Your task to perform on an android device: Open the calendar app, open the side menu, and click the "Day" option Image 0: 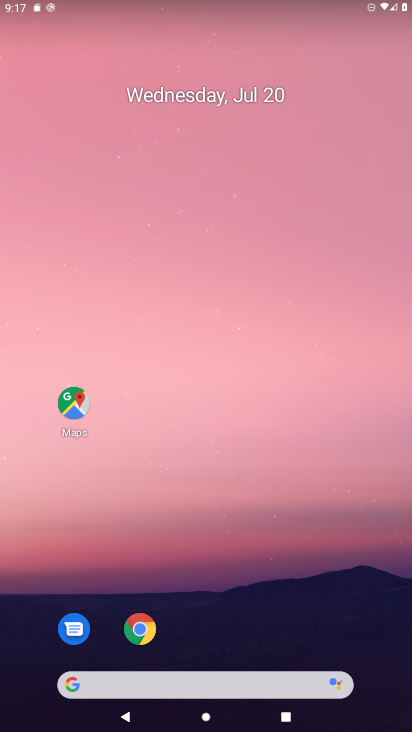
Step 0: drag from (388, 670) to (341, 10)
Your task to perform on an android device: Open the calendar app, open the side menu, and click the "Day" option Image 1: 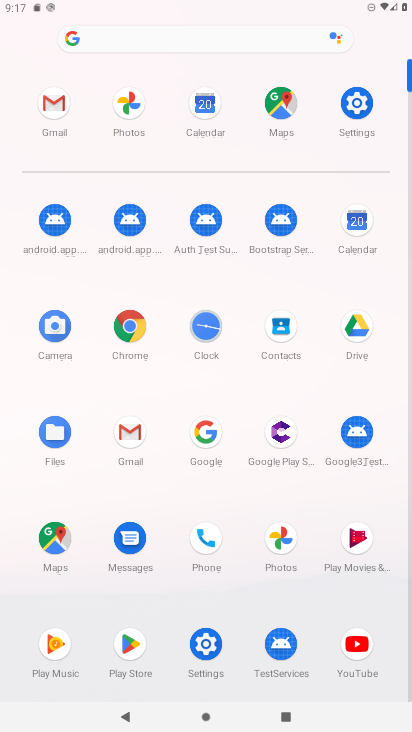
Step 1: click (352, 219)
Your task to perform on an android device: Open the calendar app, open the side menu, and click the "Day" option Image 2: 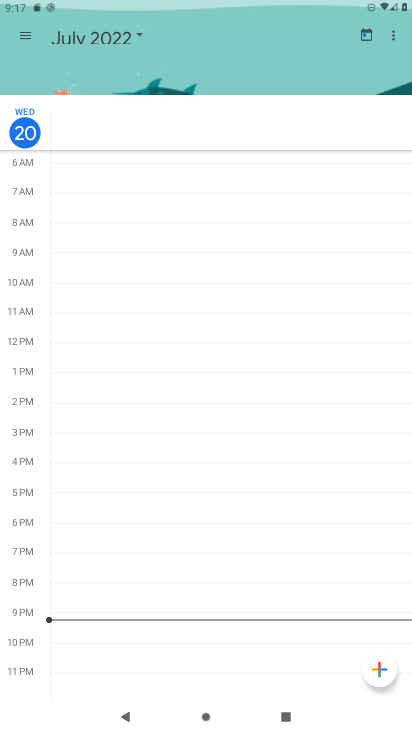
Step 2: click (25, 37)
Your task to perform on an android device: Open the calendar app, open the side menu, and click the "Day" option Image 3: 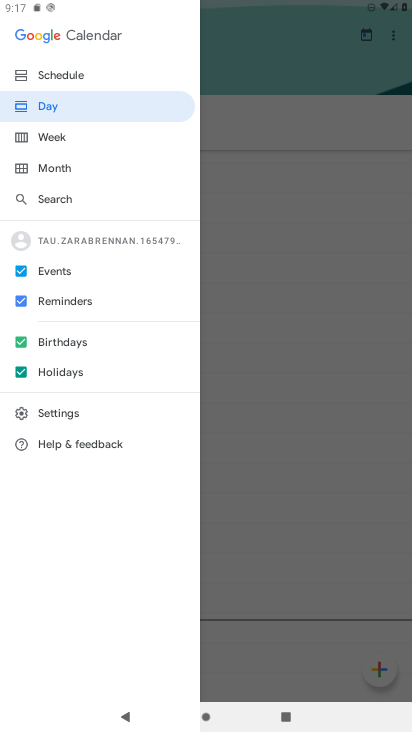
Step 3: click (56, 111)
Your task to perform on an android device: Open the calendar app, open the side menu, and click the "Day" option Image 4: 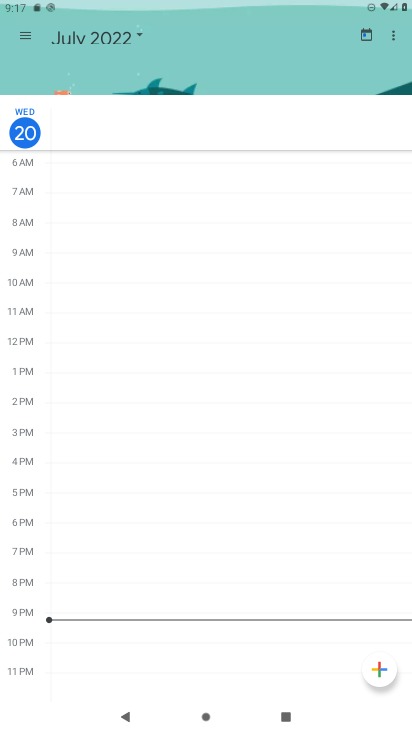
Step 4: task complete